Your task to perform on an android device: Open Google Maps Image 0: 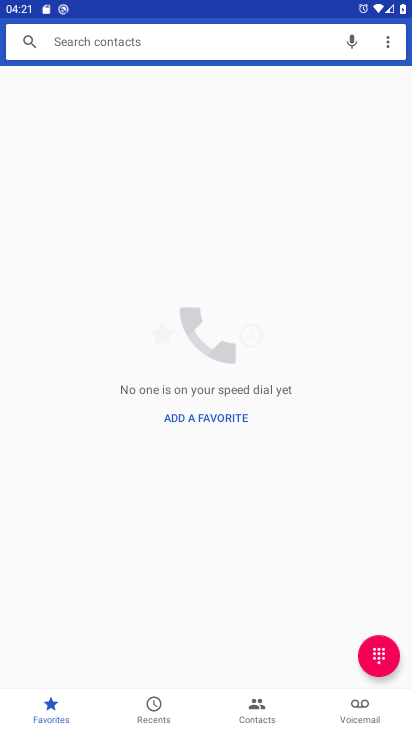
Step 0: press home button
Your task to perform on an android device: Open Google Maps Image 1: 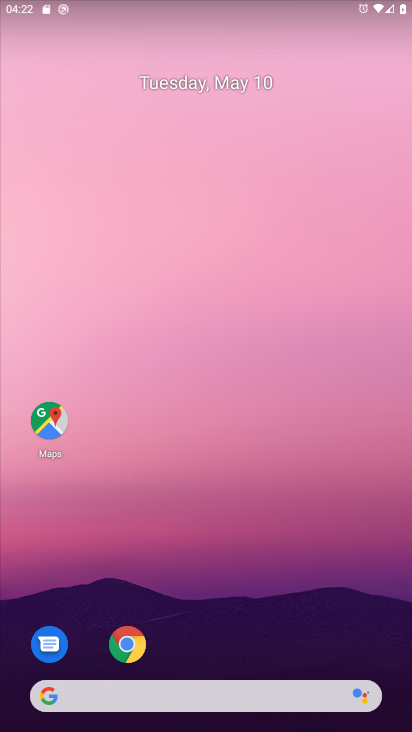
Step 1: click (51, 416)
Your task to perform on an android device: Open Google Maps Image 2: 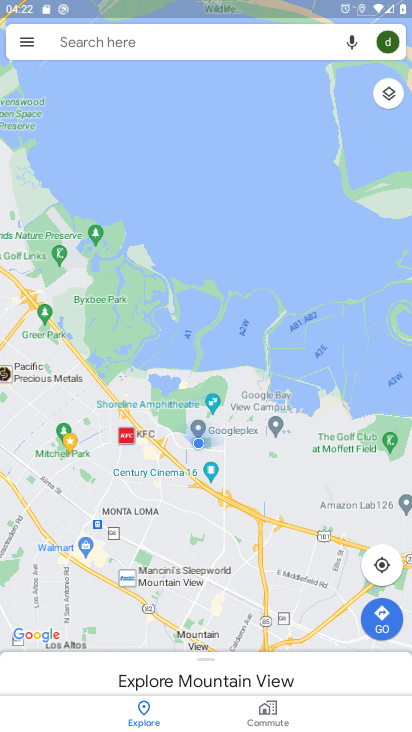
Step 2: task complete